Your task to perform on an android device: toggle show notifications on the lock screen Image 0: 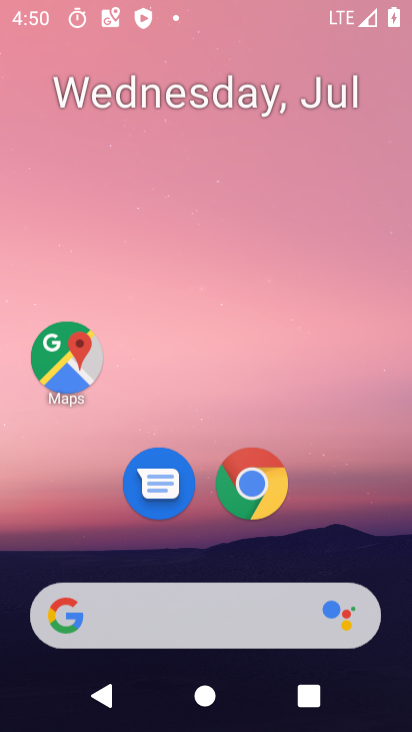
Step 0: drag from (205, 556) to (299, 5)
Your task to perform on an android device: toggle show notifications on the lock screen Image 1: 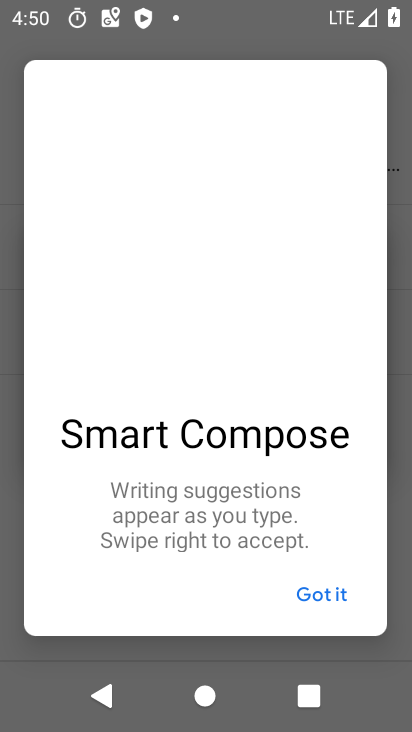
Step 1: press back button
Your task to perform on an android device: toggle show notifications on the lock screen Image 2: 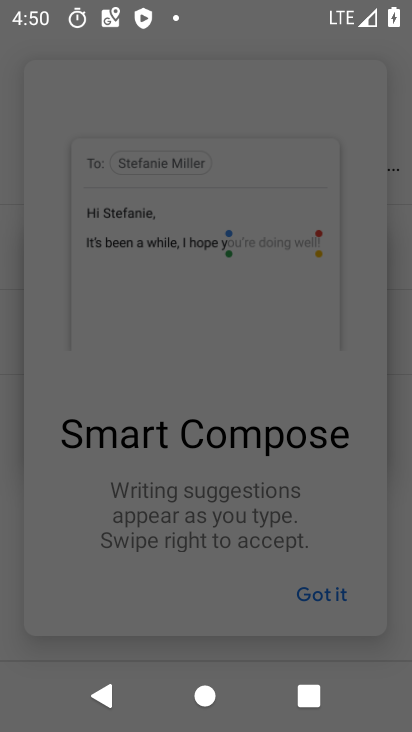
Step 2: press home button
Your task to perform on an android device: toggle show notifications on the lock screen Image 3: 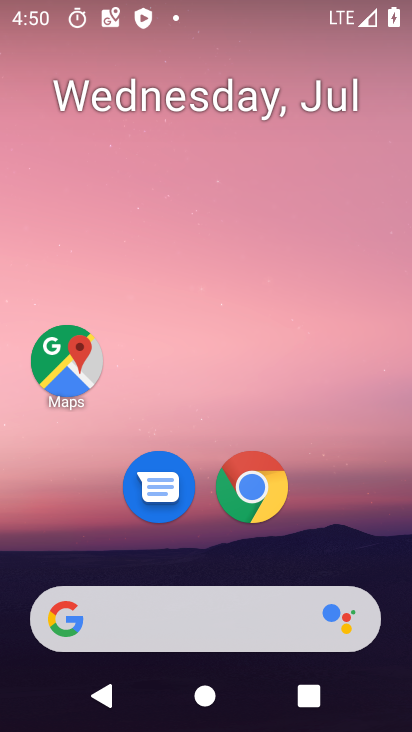
Step 3: drag from (182, 571) to (274, 12)
Your task to perform on an android device: toggle show notifications on the lock screen Image 4: 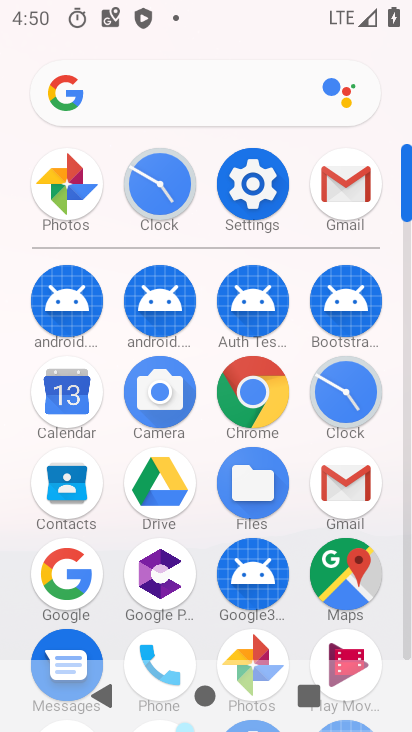
Step 4: click (246, 187)
Your task to perform on an android device: toggle show notifications on the lock screen Image 5: 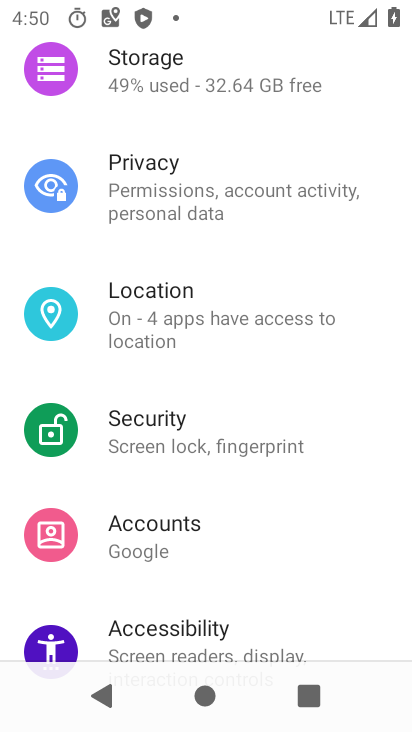
Step 5: drag from (200, 220) to (175, 724)
Your task to perform on an android device: toggle show notifications on the lock screen Image 6: 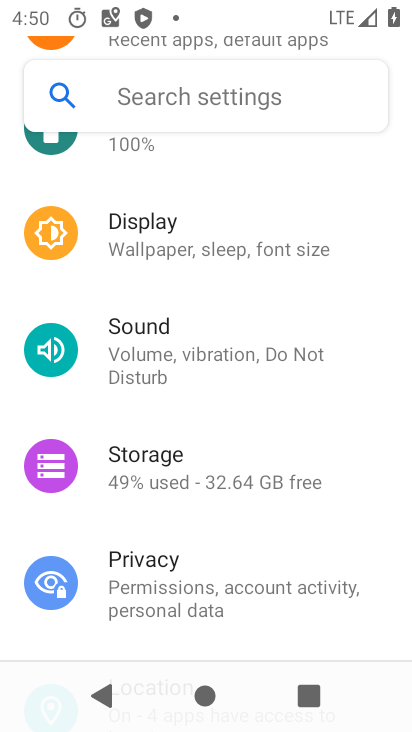
Step 6: drag from (203, 212) to (199, 667)
Your task to perform on an android device: toggle show notifications on the lock screen Image 7: 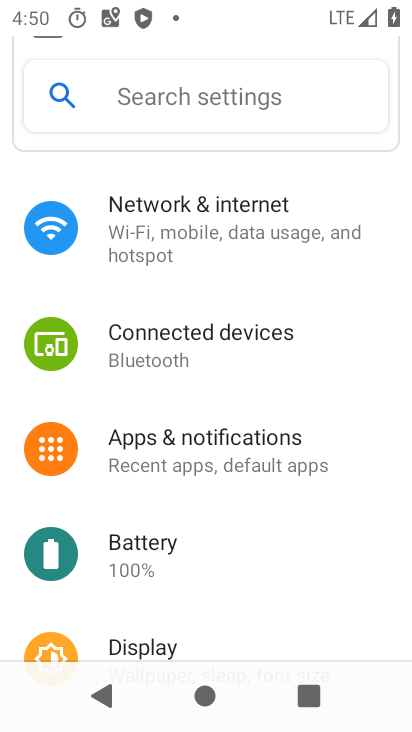
Step 7: click (227, 447)
Your task to perform on an android device: toggle show notifications on the lock screen Image 8: 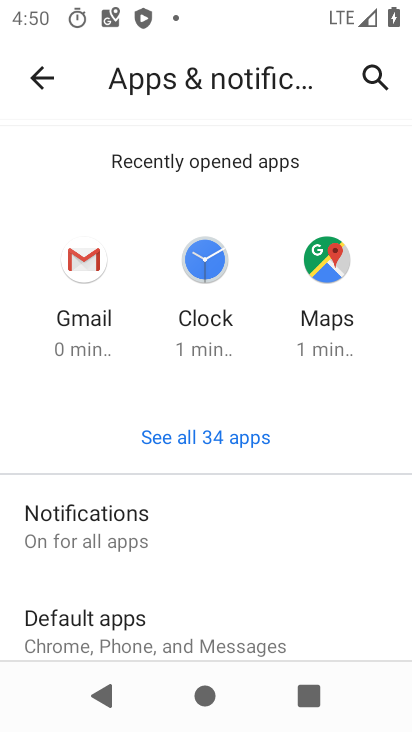
Step 8: click (140, 517)
Your task to perform on an android device: toggle show notifications on the lock screen Image 9: 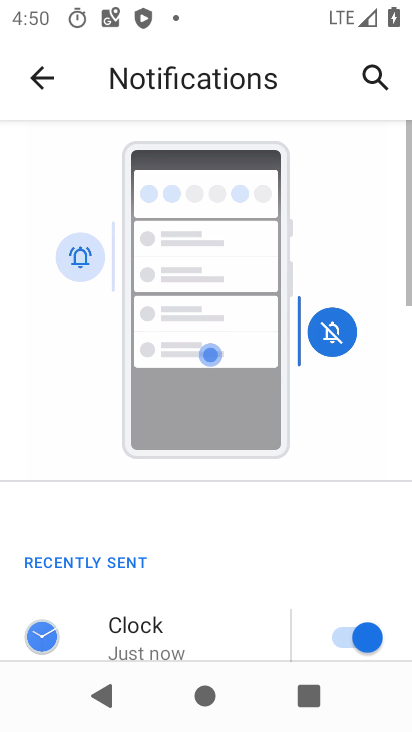
Step 9: drag from (135, 620) to (269, 93)
Your task to perform on an android device: toggle show notifications on the lock screen Image 10: 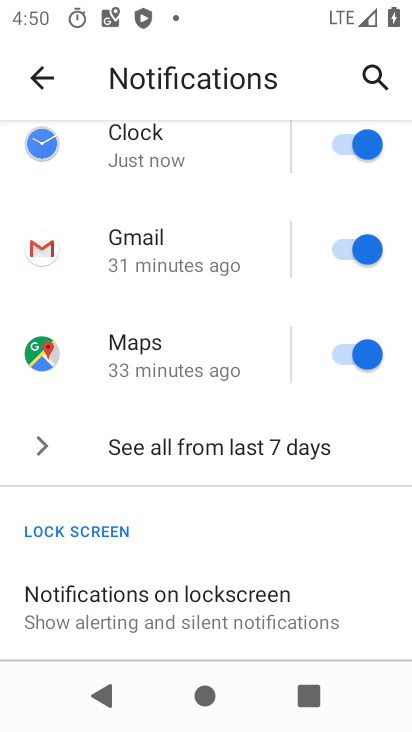
Step 10: click (180, 589)
Your task to perform on an android device: toggle show notifications on the lock screen Image 11: 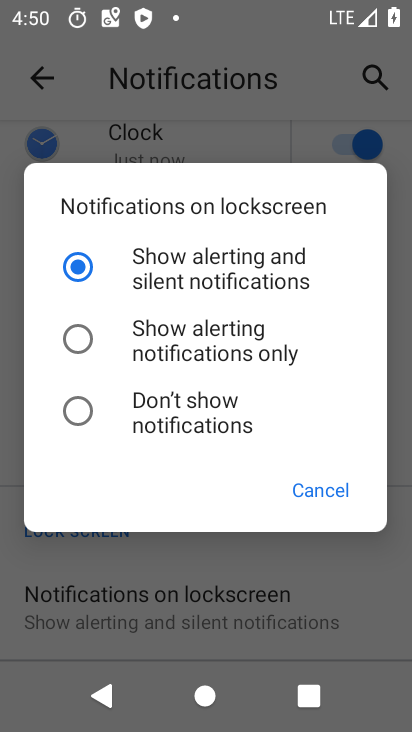
Step 11: click (73, 266)
Your task to perform on an android device: toggle show notifications on the lock screen Image 12: 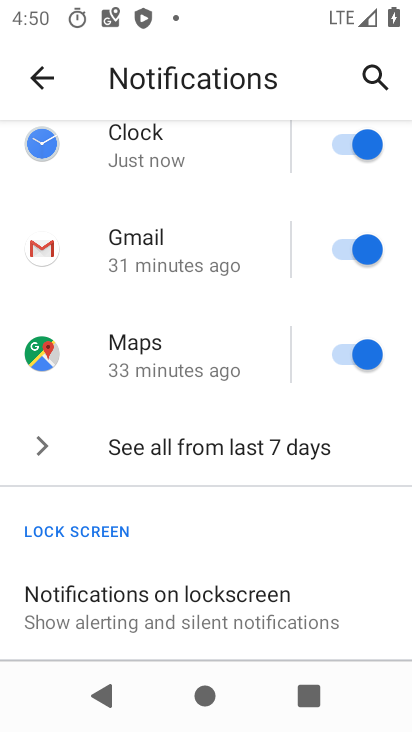
Step 12: task complete